Your task to perform on an android device: move an email to a new category in the gmail app Image 0: 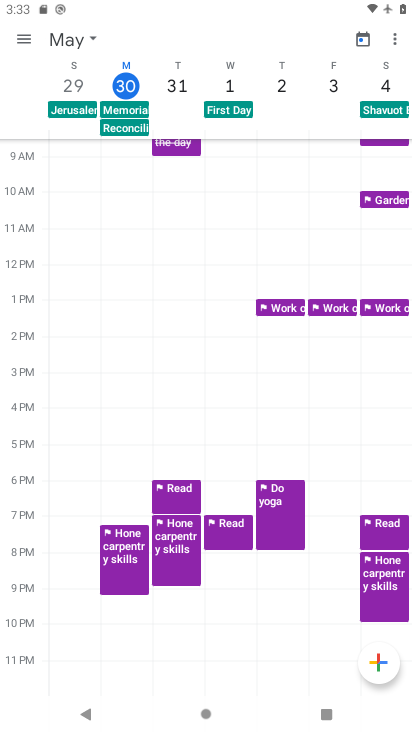
Step 0: press home button
Your task to perform on an android device: move an email to a new category in the gmail app Image 1: 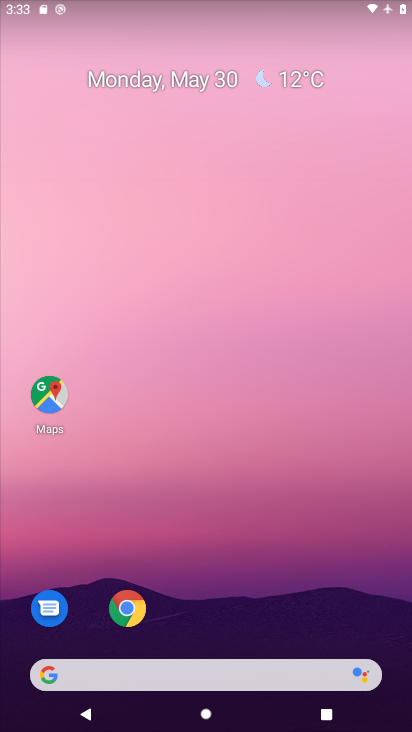
Step 1: drag from (304, 587) to (181, 8)
Your task to perform on an android device: move an email to a new category in the gmail app Image 2: 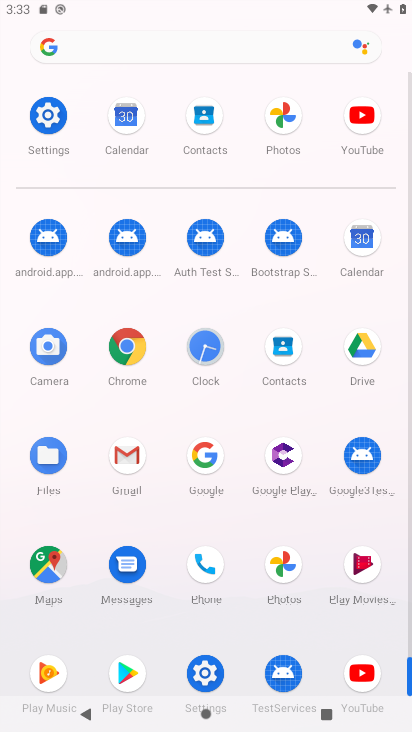
Step 2: click (128, 463)
Your task to perform on an android device: move an email to a new category in the gmail app Image 3: 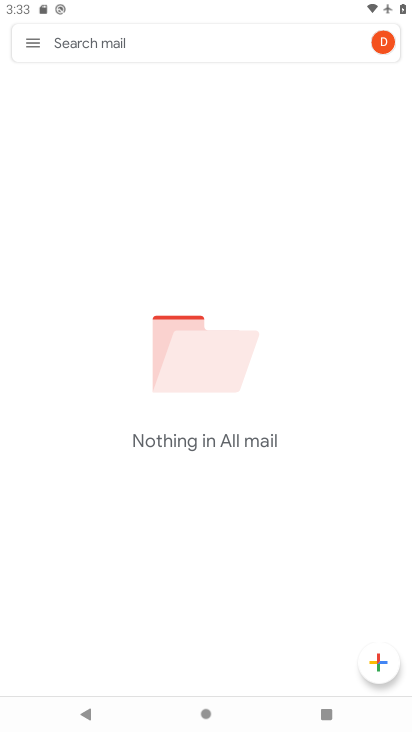
Step 3: click (35, 47)
Your task to perform on an android device: move an email to a new category in the gmail app Image 4: 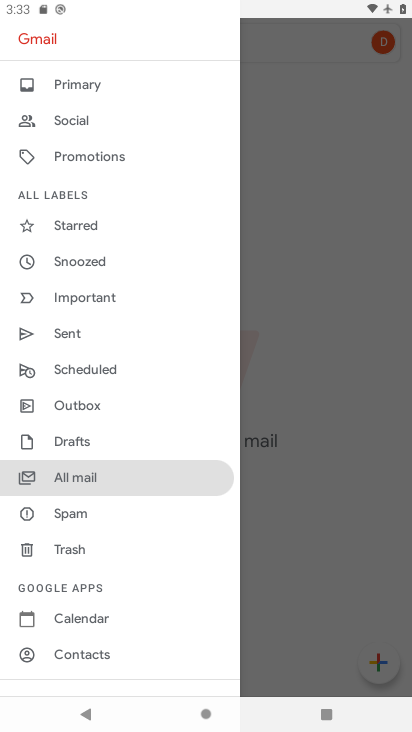
Step 4: click (291, 352)
Your task to perform on an android device: move an email to a new category in the gmail app Image 5: 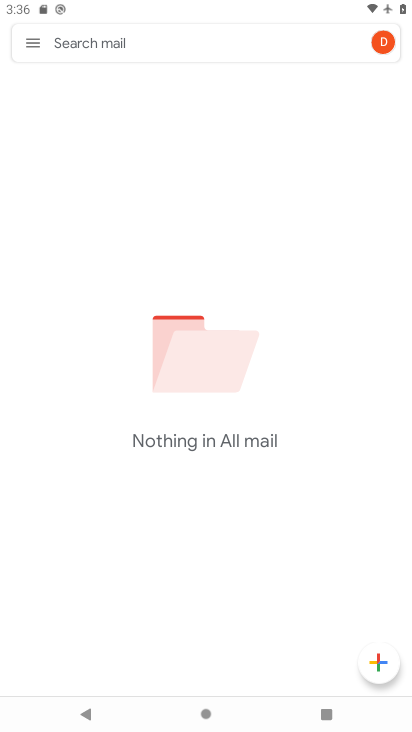
Step 5: task complete